Your task to perform on an android device: change alarm snooze length Image 0: 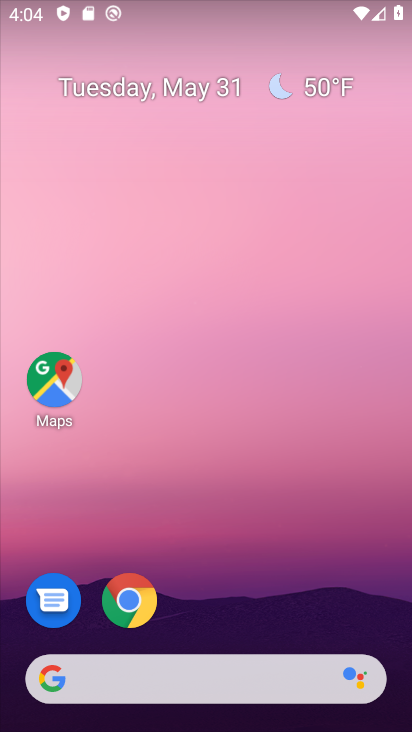
Step 0: drag from (253, 586) to (228, 29)
Your task to perform on an android device: change alarm snooze length Image 1: 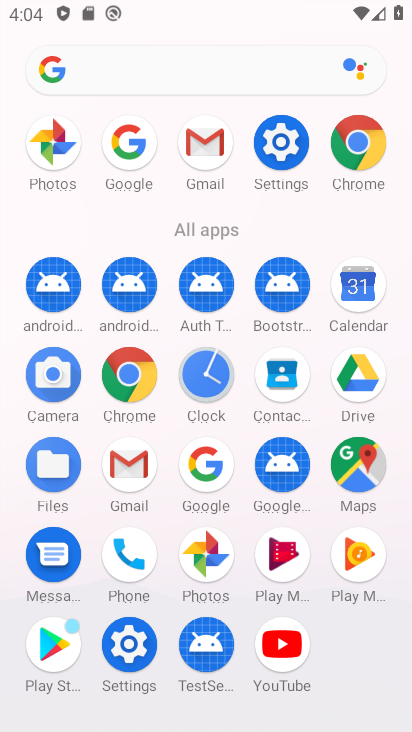
Step 1: click (206, 374)
Your task to perform on an android device: change alarm snooze length Image 2: 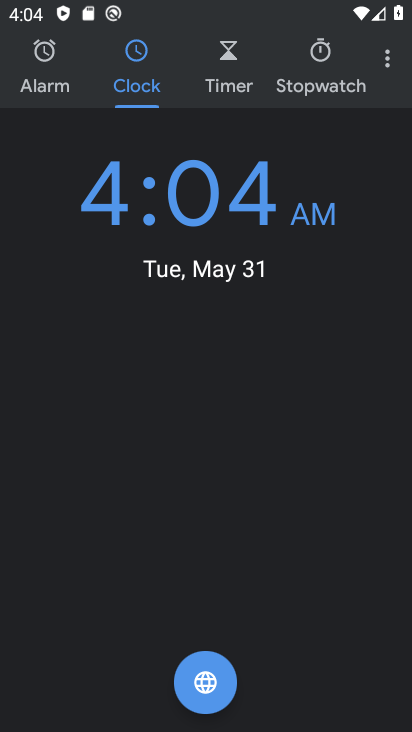
Step 2: click (389, 58)
Your task to perform on an android device: change alarm snooze length Image 3: 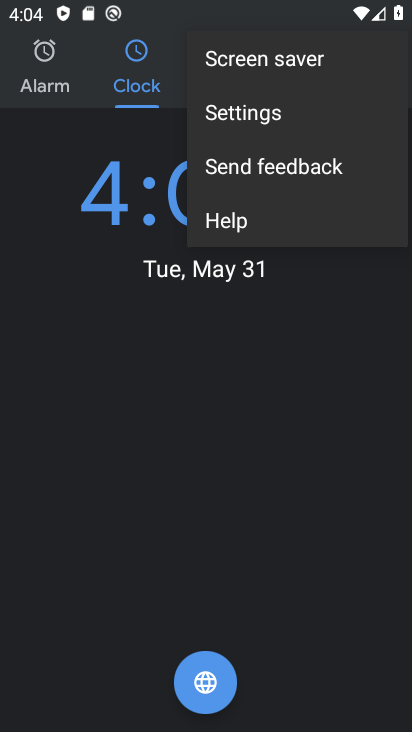
Step 3: click (265, 121)
Your task to perform on an android device: change alarm snooze length Image 4: 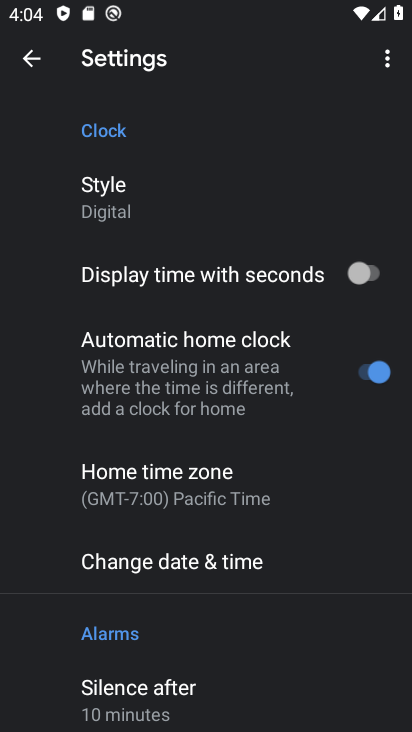
Step 4: drag from (212, 639) to (281, 521)
Your task to perform on an android device: change alarm snooze length Image 5: 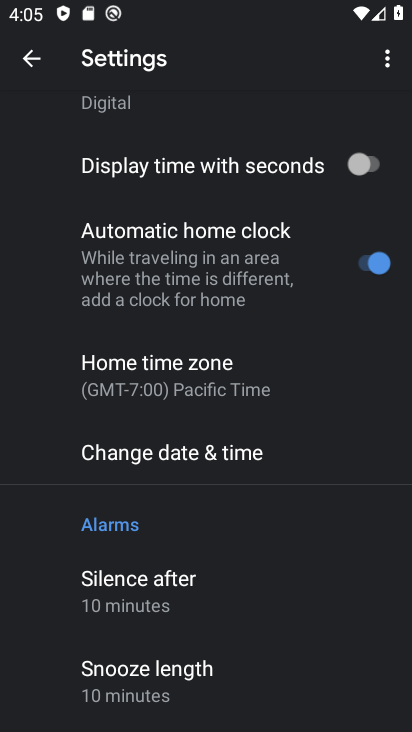
Step 5: click (172, 675)
Your task to perform on an android device: change alarm snooze length Image 6: 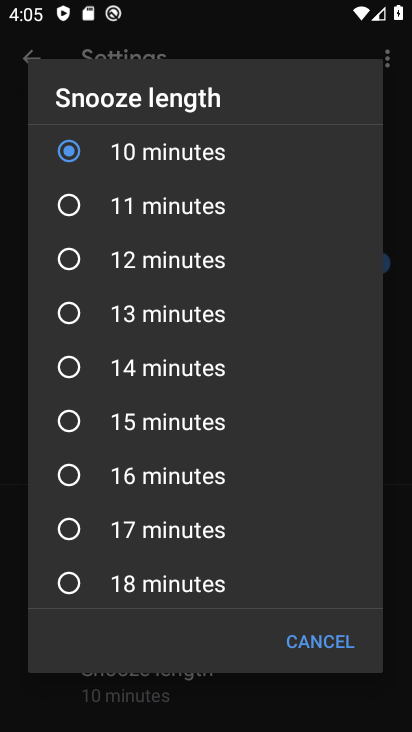
Step 6: drag from (130, 454) to (218, 299)
Your task to perform on an android device: change alarm snooze length Image 7: 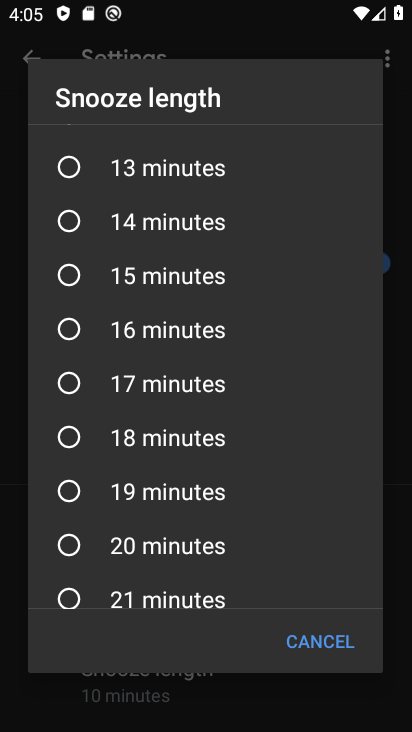
Step 7: click (79, 441)
Your task to perform on an android device: change alarm snooze length Image 8: 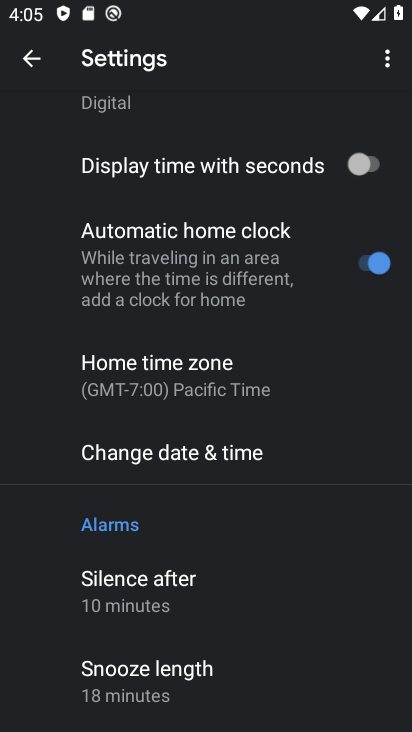
Step 8: task complete